Your task to perform on an android device: toggle translation in the chrome app Image 0: 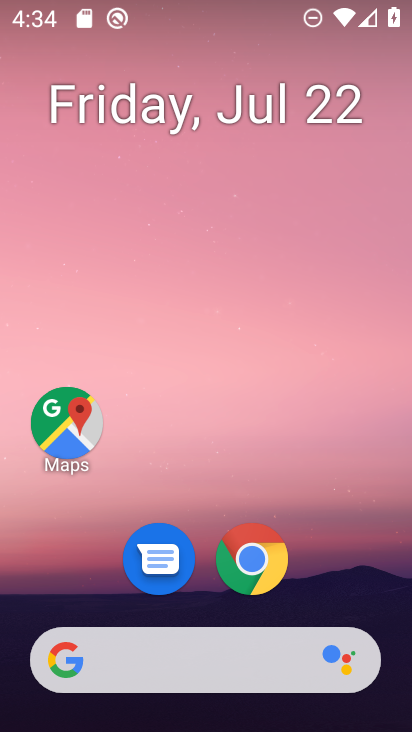
Step 0: click (238, 559)
Your task to perform on an android device: toggle translation in the chrome app Image 1: 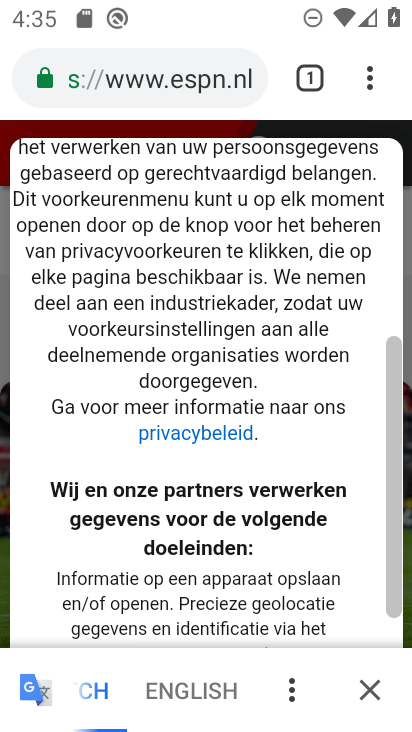
Step 1: drag from (362, 75) to (112, 597)
Your task to perform on an android device: toggle translation in the chrome app Image 2: 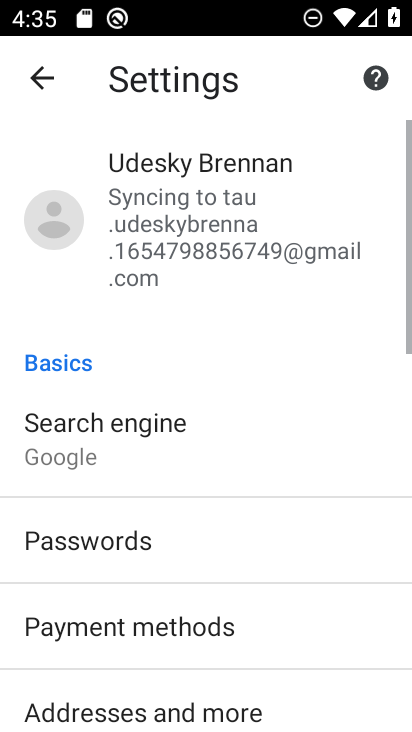
Step 2: drag from (133, 683) to (177, 87)
Your task to perform on an android device: toggle translation in the chrome app Image 3: 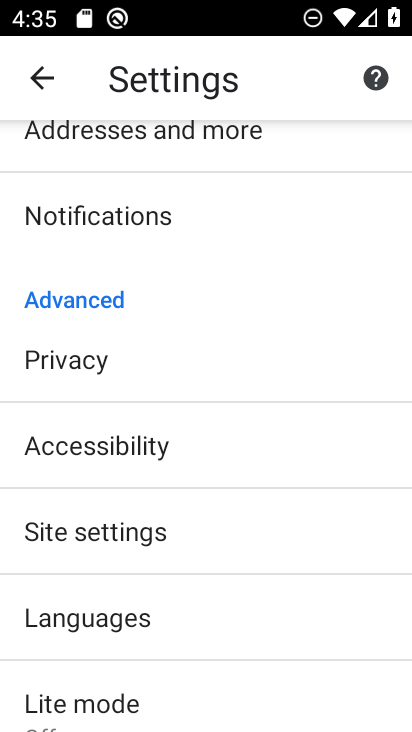
Step 3: click (85, 621)
Your task to perform on an android device: toggle translation in the chrome app Image 4: 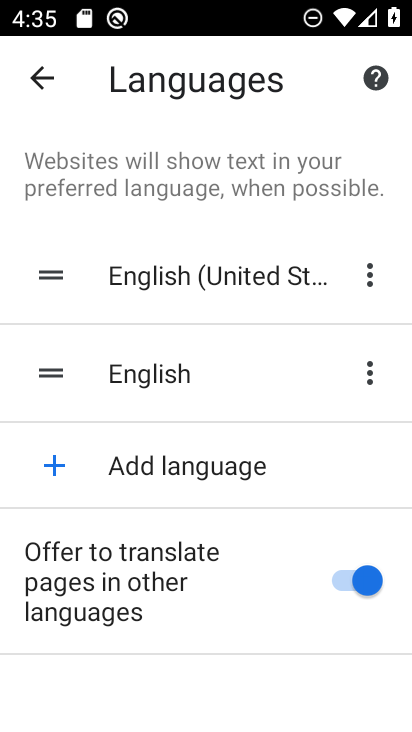
Step 4: click (354, 579)
Your task to perform on an android device: toggle translation in the chrome app Image 5: 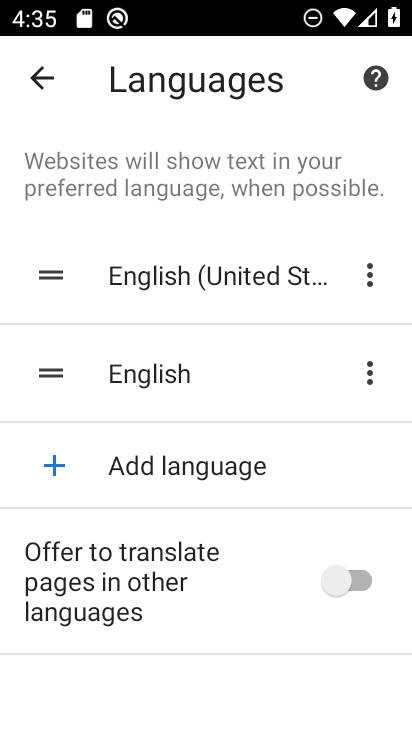
Step 5: task complete